Your task to perform on an android device: Open Maps and search for coffee Image 0: 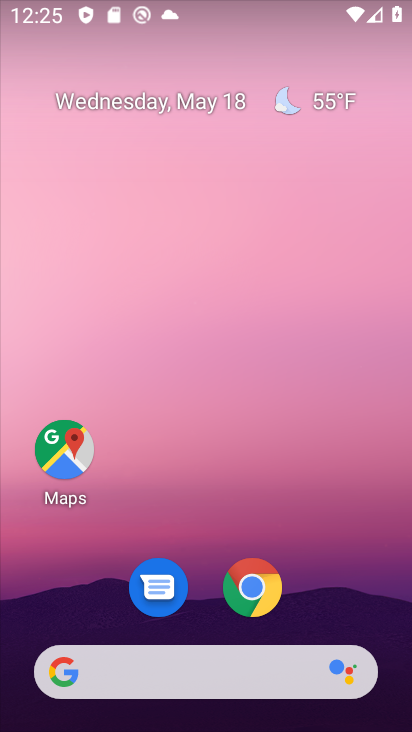
Step 0: click (63, 452)
Your task to perform on an android device: Open Maps and search for coffee Image 1: 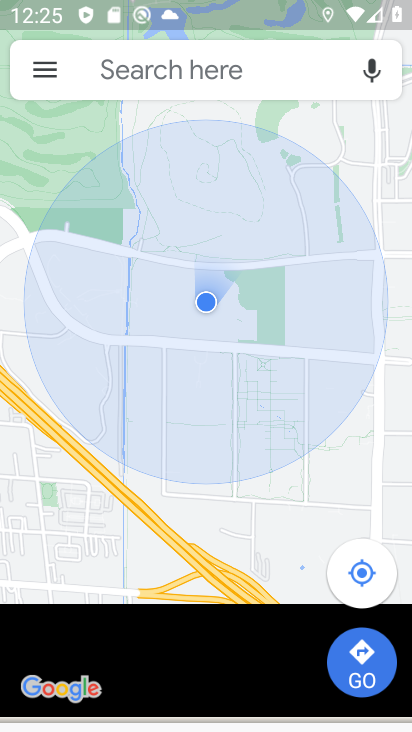
Step 1: click (209, 78)
Your task to perform on an android device: Open Maps and search for coffee Image 2: 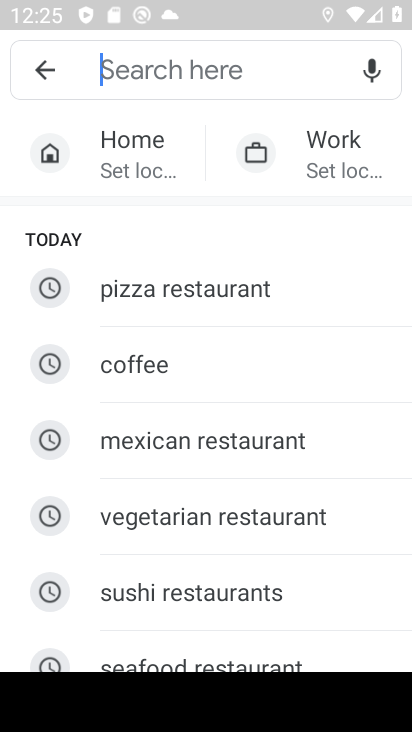
Step 2: click (156, 354)
Your task to perform on an android device: Open Maps and search for coffee Image 3: 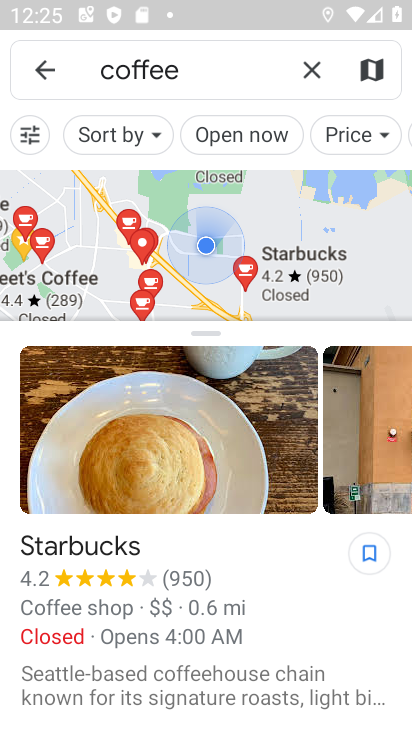
Step 3: task complete